Your task to perform on an android device: toggle data saver in the chrome app Image 0: 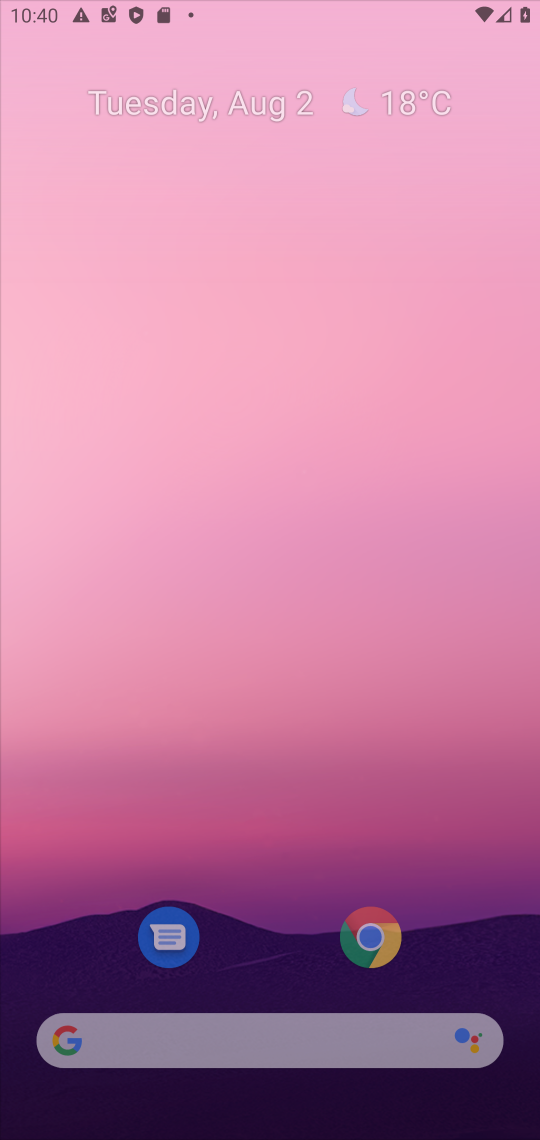
Step 0: press home button
Your task to perform on an android device: toggle data saver in the chrome app Image 1: 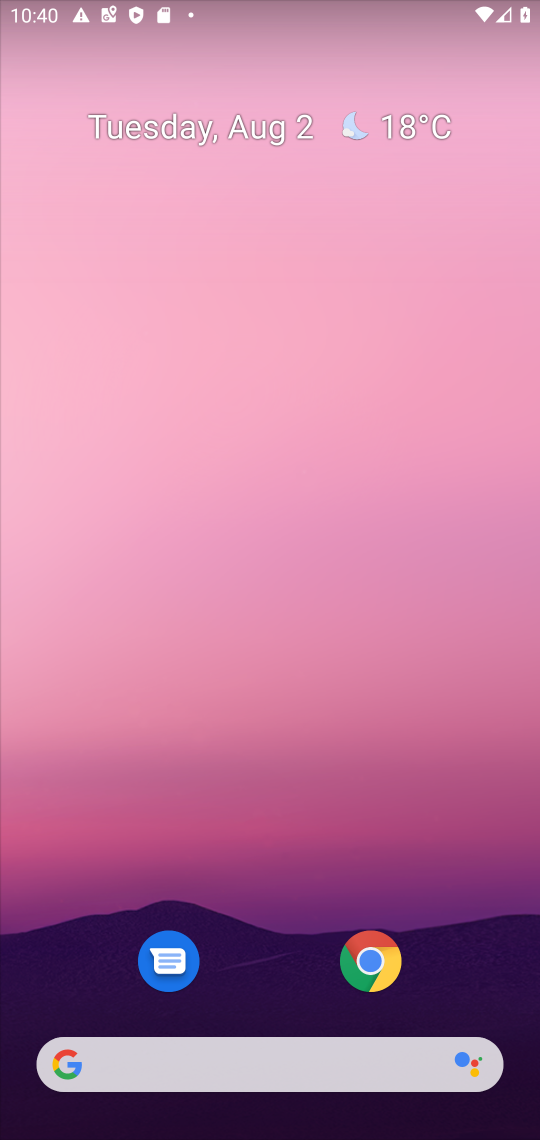
Step 1: drag from (317, 805) to (515, 344)
Your task to perform on an android device: toggle data saver in the chrome app Image 2: 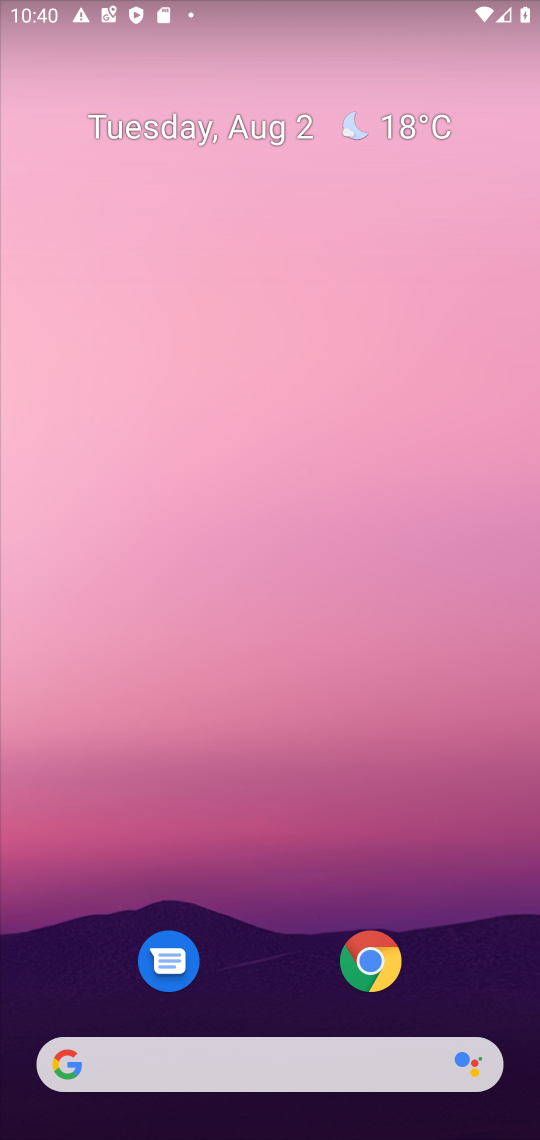
Step 2: drag from (288, 708) to (360, 259)
Your task to perform on an android device: toggle data saver in the chrome app Image 3: 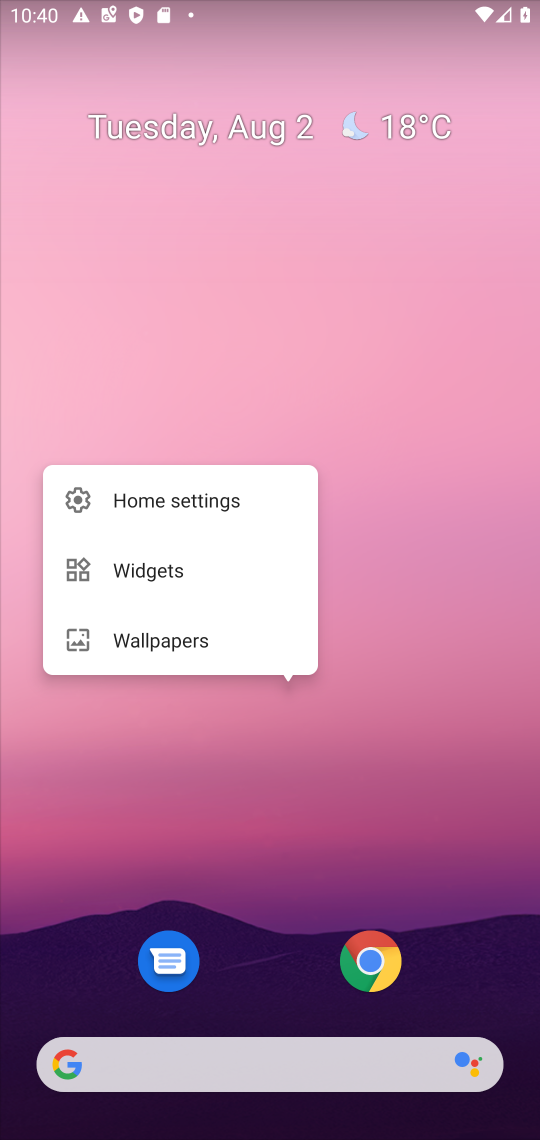
Step 3: click (40, 786)
Your task to perform on an android device: toggle data saver in the chrome app Image 4: 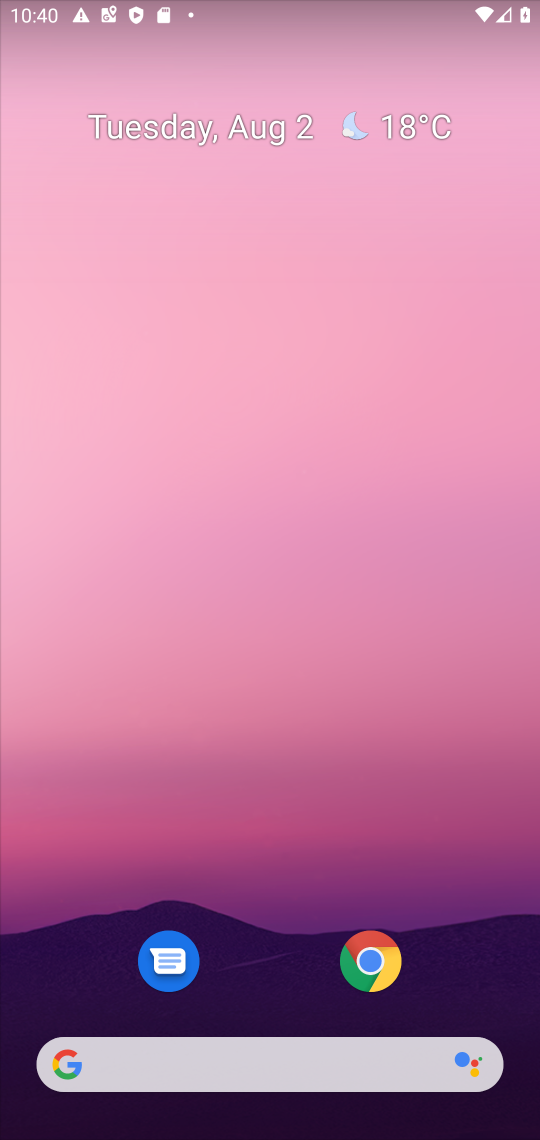
Step 4: drag from (248, 971) to (281, 518)
Your task to perform on an android device: toggle data saver in the chrome app Image 5: 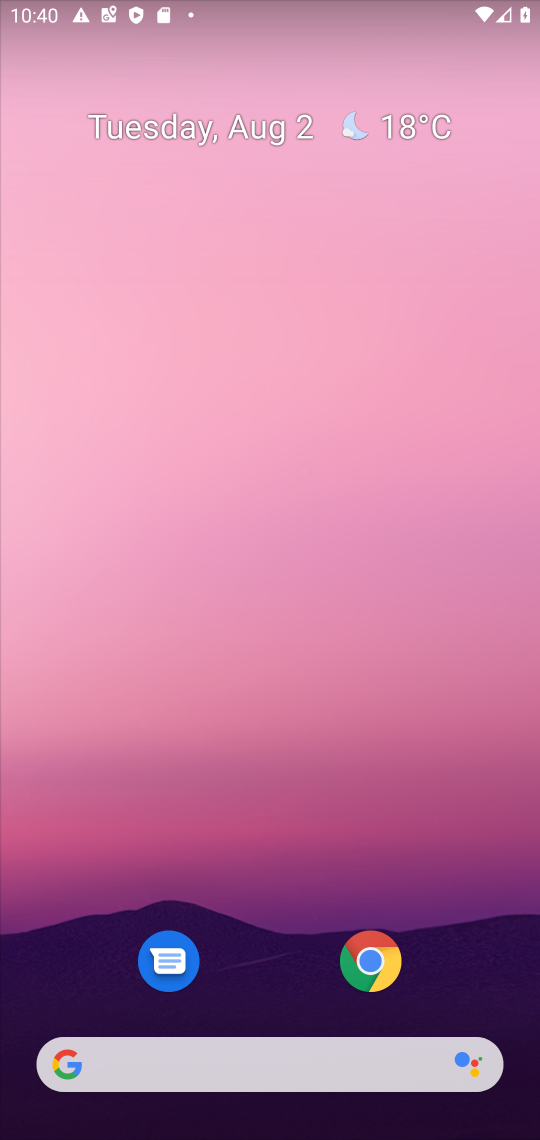
Step 5: drag from (387, 734) to (506, 294)
Your task to perform on an android device: toggle data saver in the chrome app Image 6: 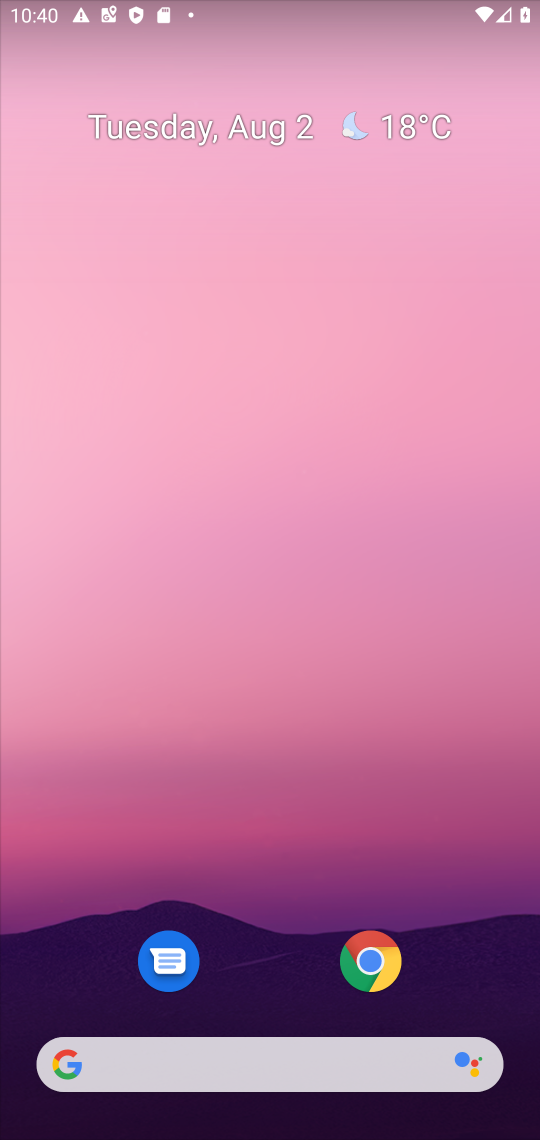
Step 6: drag from (298, 833) to (527, 22)
Your task to perform on an android device: toggle data saver in the chrome app Image 7: 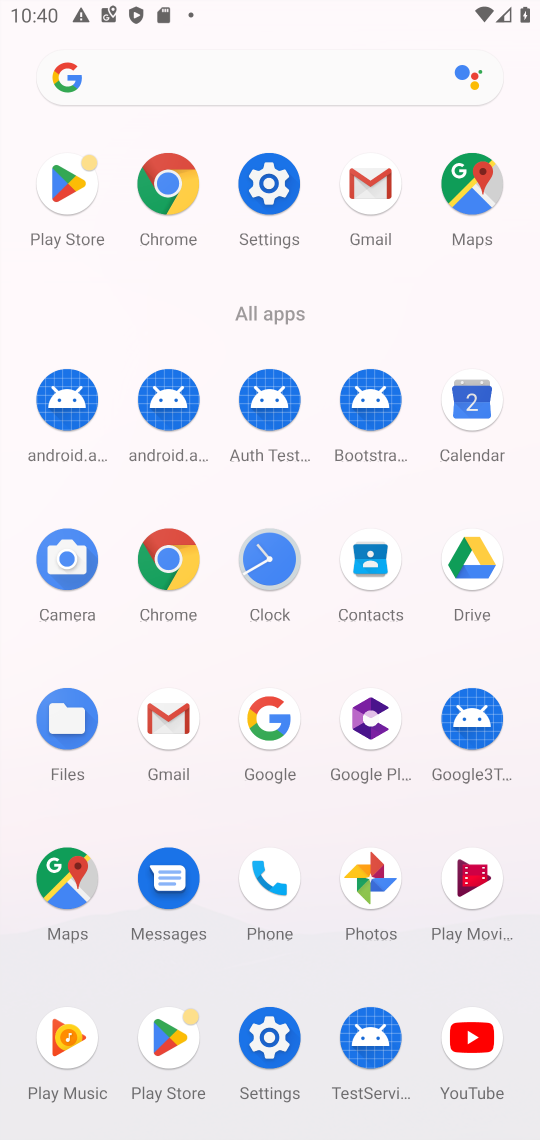
Step 7: click (172, 217)
Your task to perform on an android device: toggle data saver in the chrome app Image 8: 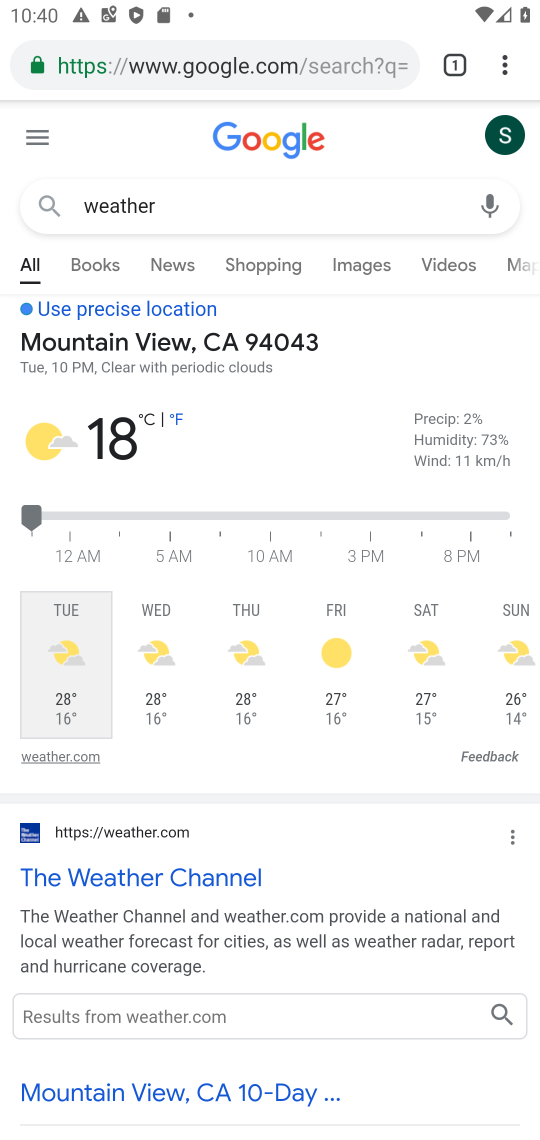
Step 8: drag from (510, 60) to (315, 791)
Your task to perform on an android device: toggle data saver in the chrome app Image 9: 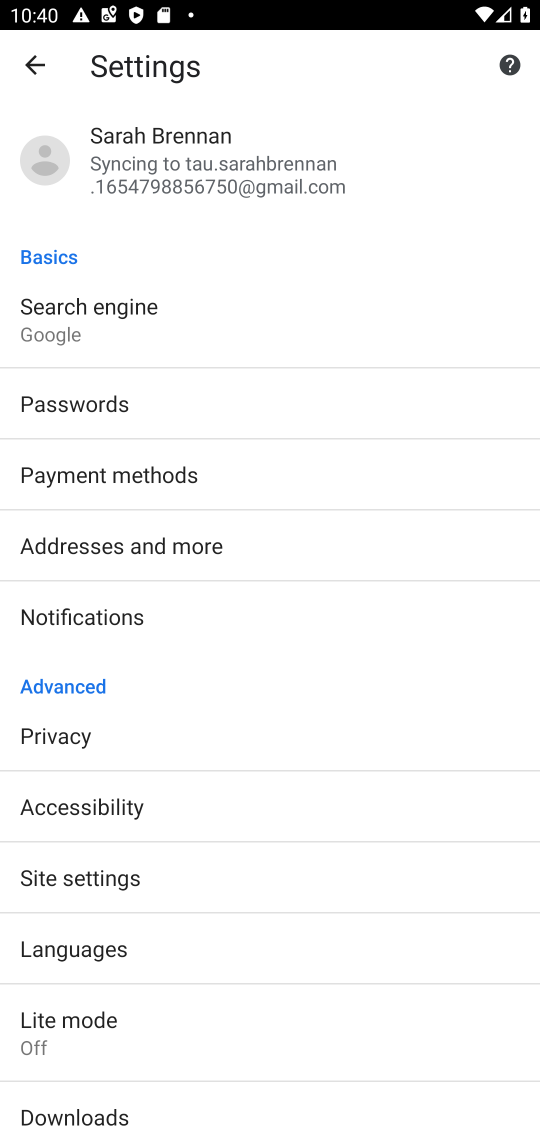
Step 9: drag from (354, 11) to (302, 179)
Your task to perform on an android device: toggle data saver in the chrome app Image 10: 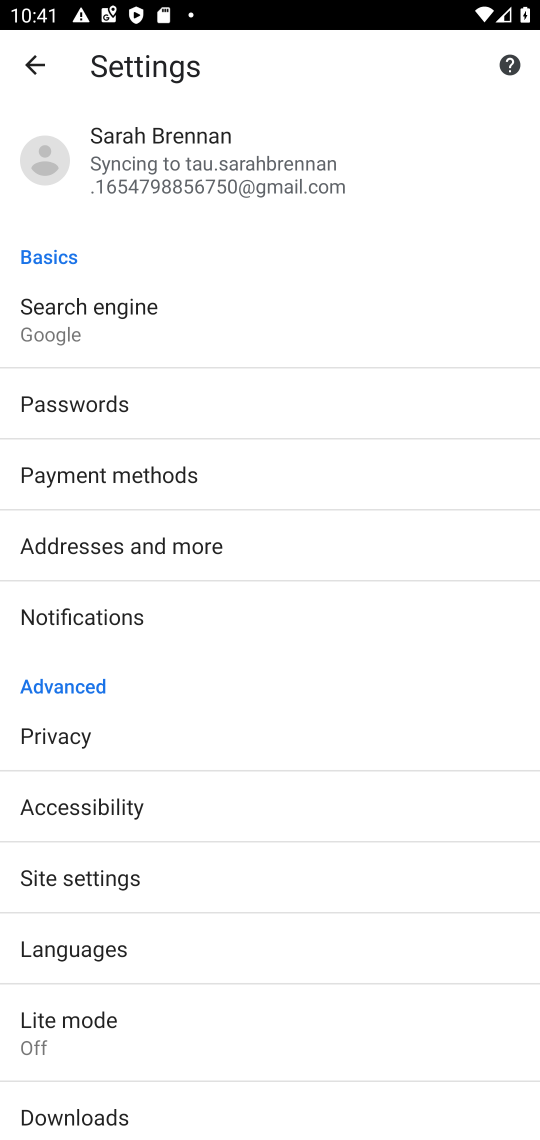
Step 10: drag from (176, 572) to (474, 836)
Your task to perform on an android device: toggle data saver in the chrome app Image 11: 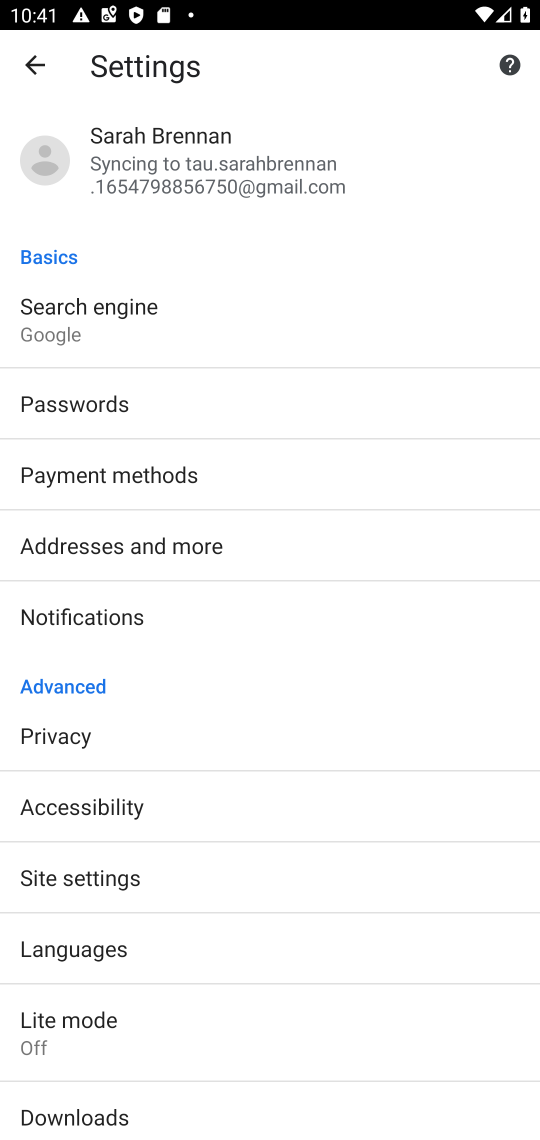
Step 11: click (194, 1020)
Your task to perform on an android device: toggle data saver in the chrome app Image 12: 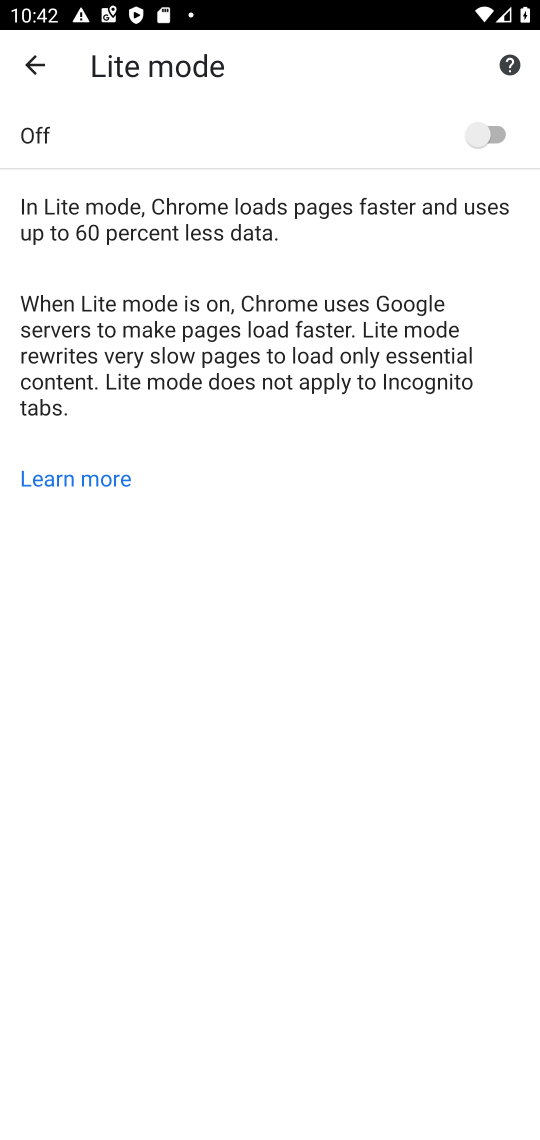
Step 12: click (450, 142)
Your task to perform on an android device: toggle data saver in the chrome app Image 13: 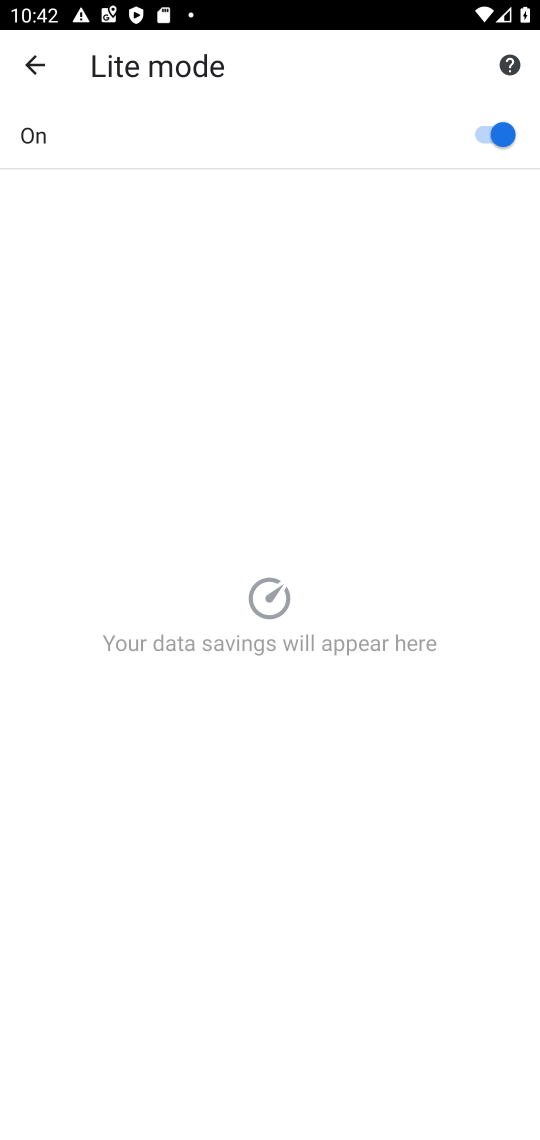
Step 13: task complete